Your task to perform on an android device: check data usage Image 0: 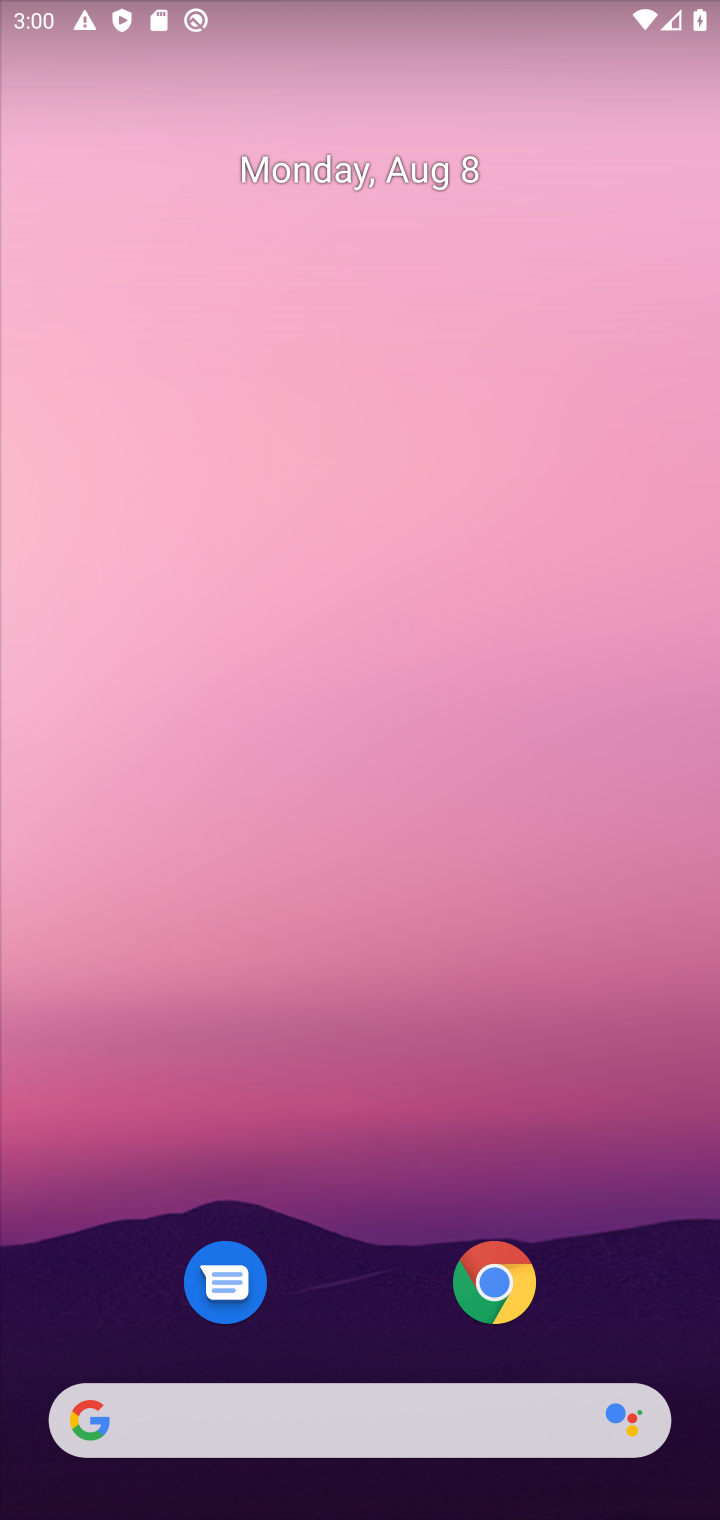
Step 0: drag from (337, 1177) to (619, 232)
Your task to perform on an android device: check data usage Image 1: 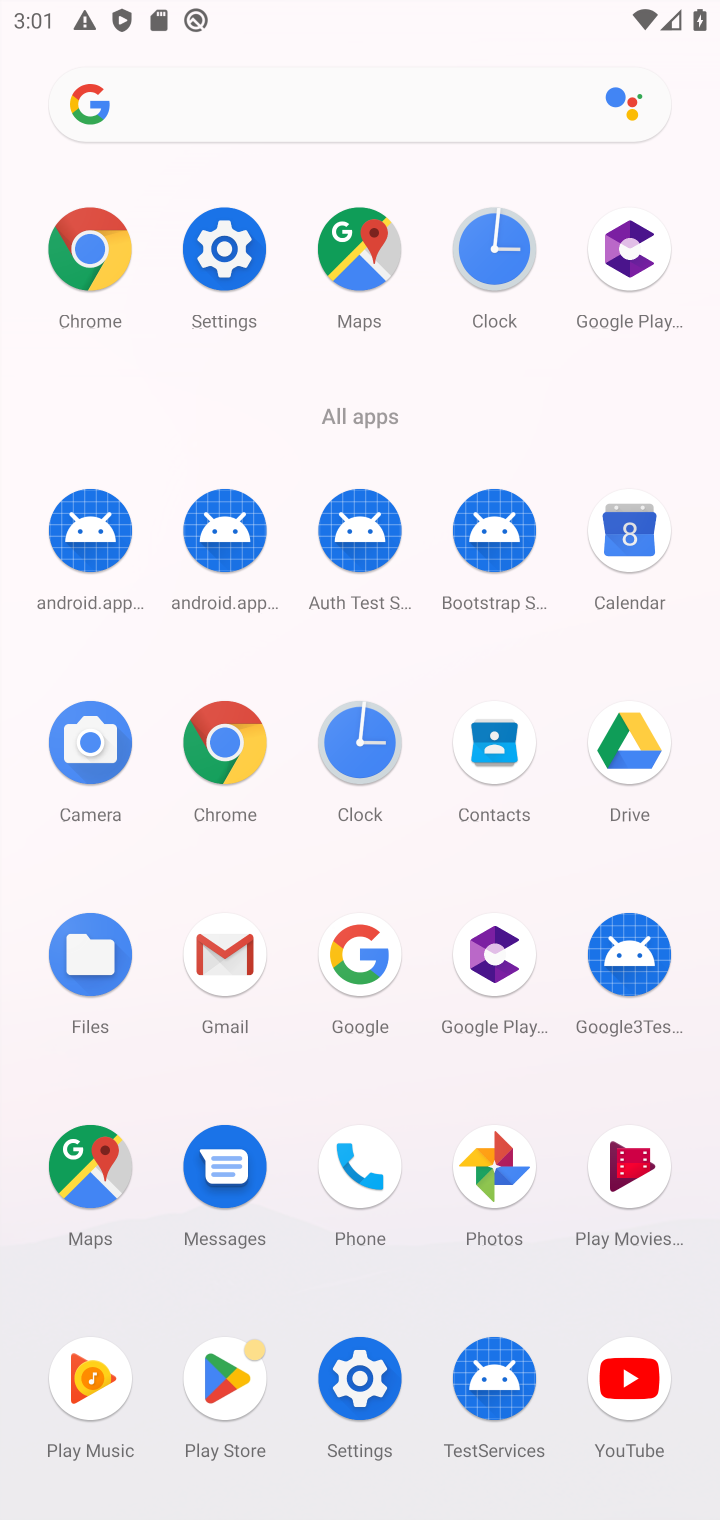
Step 1: click (229, 248)
Your task to perform on an android device: check data usage Image 2: 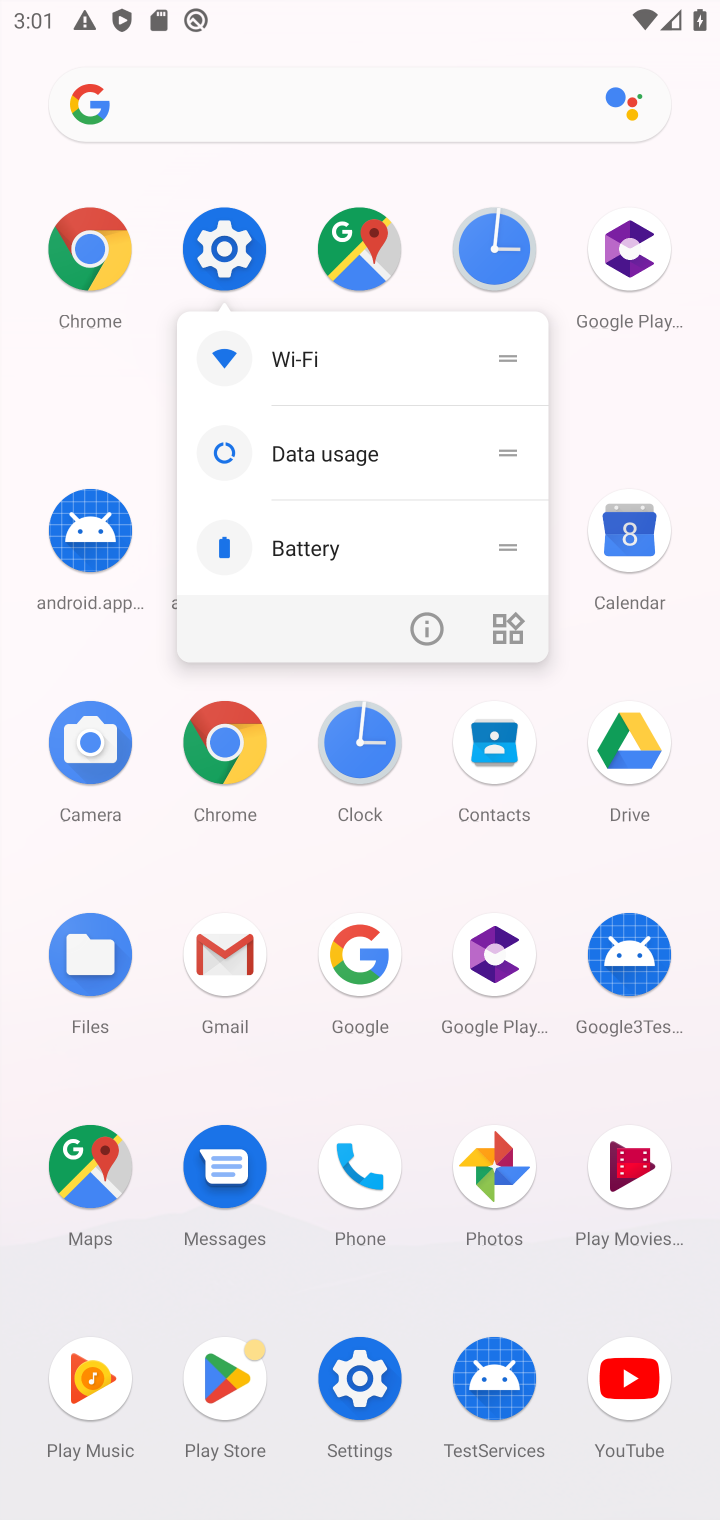
Step 2: click (231, 248)
Your task to perform on an android device: check data usage Image 3: 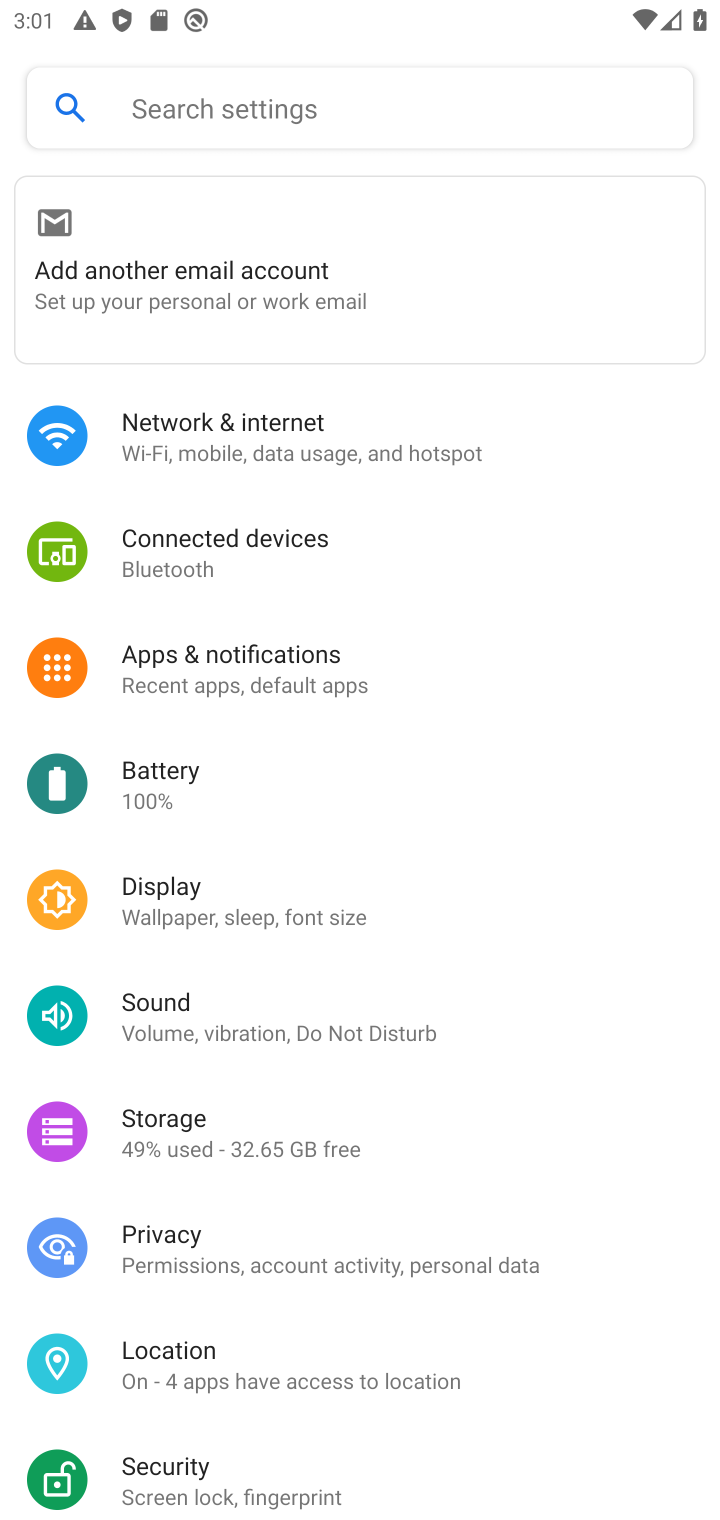
Step 3: click (236, 460)
Your task to perform on an android device: check data usage Image 4: 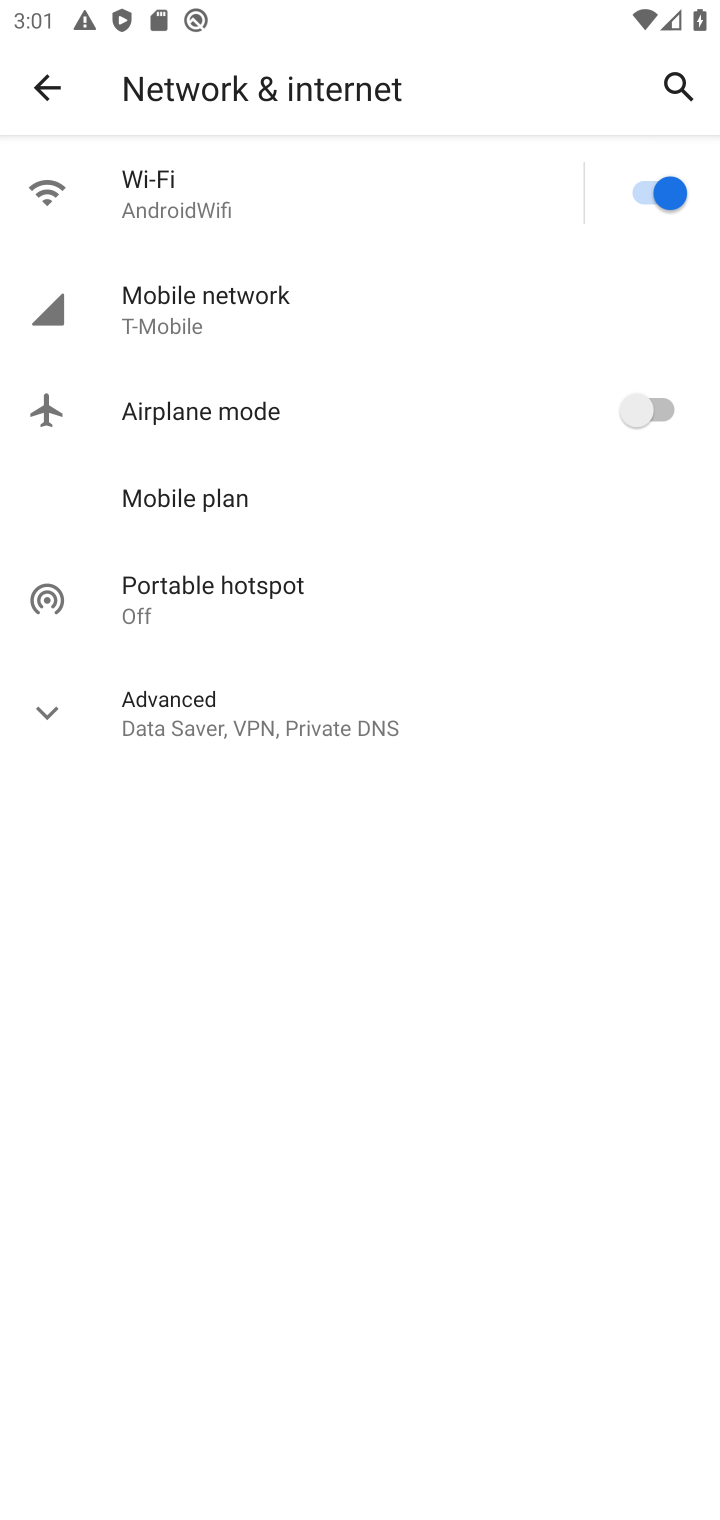
Step 4: click (263, 297)
Your task to perform on an android device: check data usage Image 5: 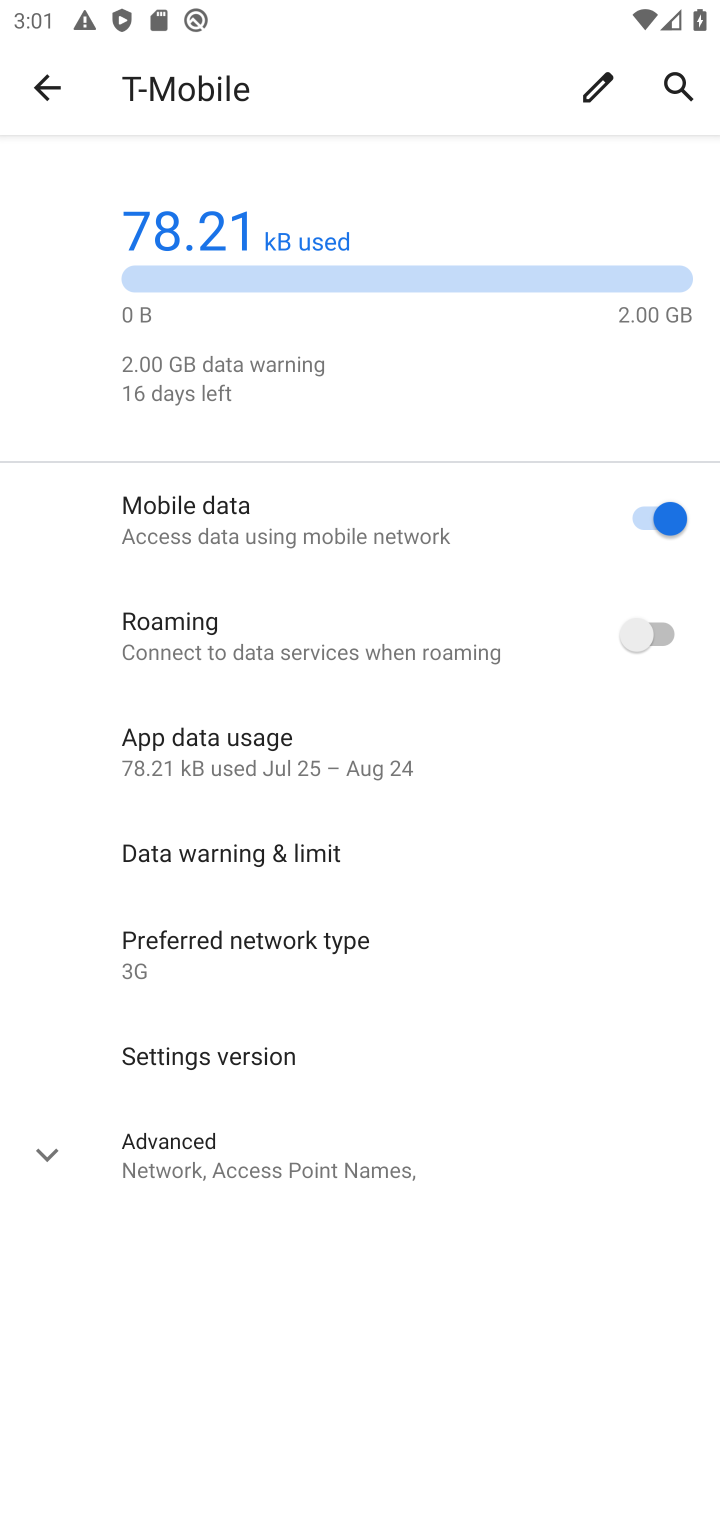
Step 5: task complete